Your task to perform on an android device: Do I have any events this weekend? Image 0: 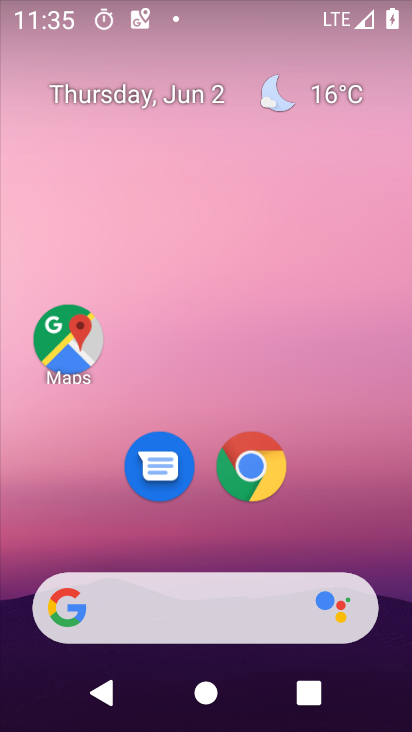
Step 0: drag from (222, 545) to (249, 171)
Your task to perform on an android device: Do I have any events this weekend? Image 1: 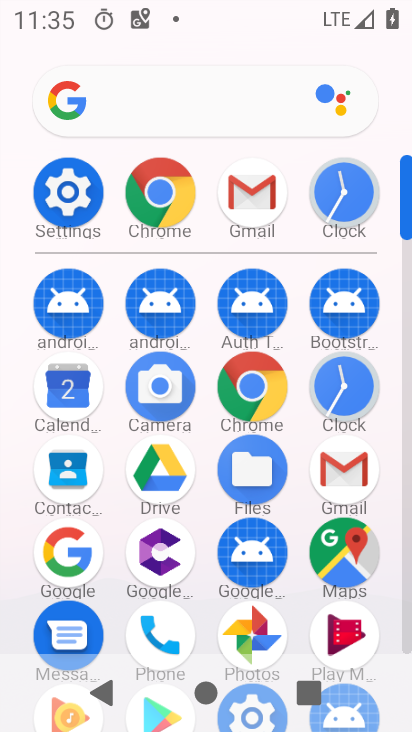
Step 1: click (69, 393)
Your task to perform on an android device: Do I have any events this weekend? Image 2: 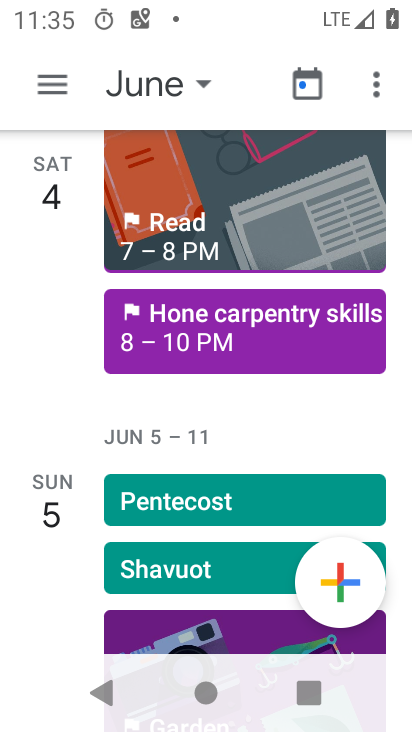
Step 2: click (200, 87)
Your task to perform on an android device: Do I have any events this weekend? Image 3: 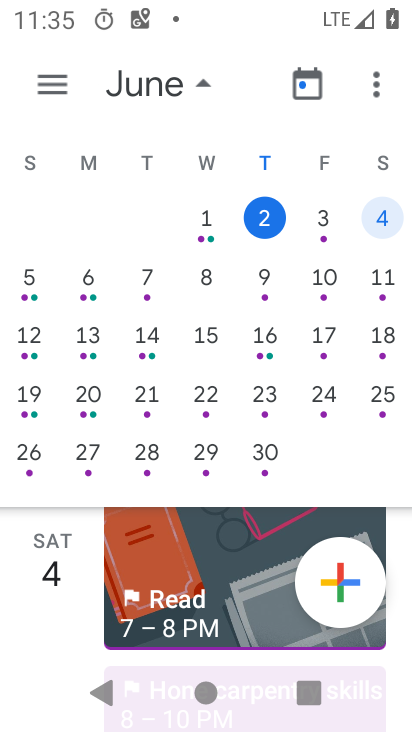
Step 3: click (387, 223)
Your task to perform on an android device: Do I have any events this weekend? Image 4: 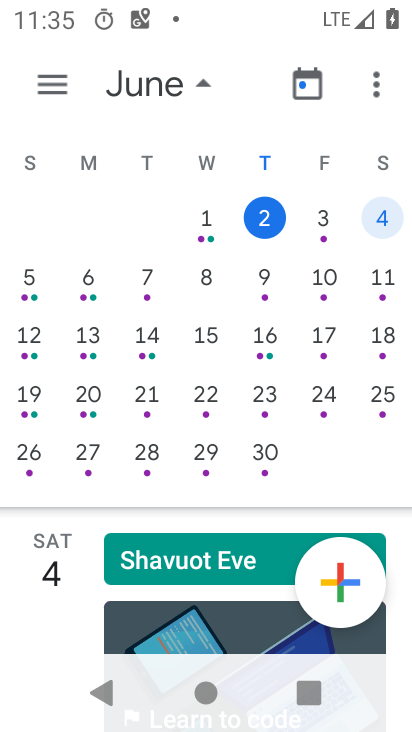
Step 4: task complete